Your task to perform on an android device: check data usage Image 0: 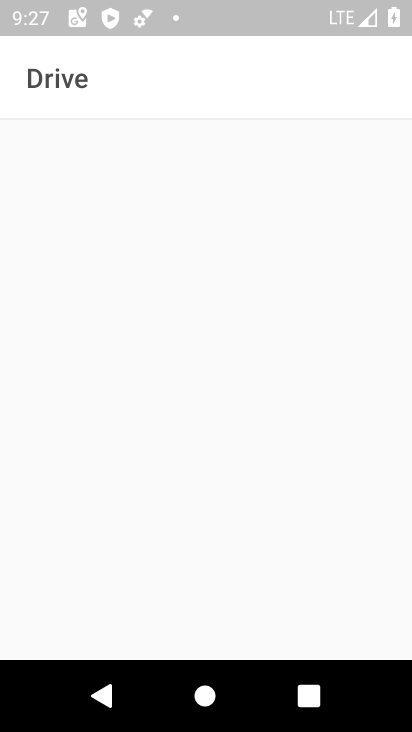
Step 0: press home button
Your task to perform on an android device: check data usage Image 1: 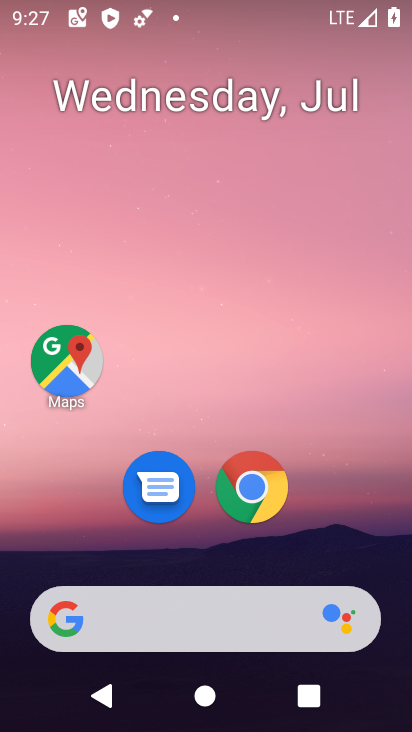
Step 1: drag from (212, 579) to (342, 6)
Your task to perform on an android device: check data usage Image 2: 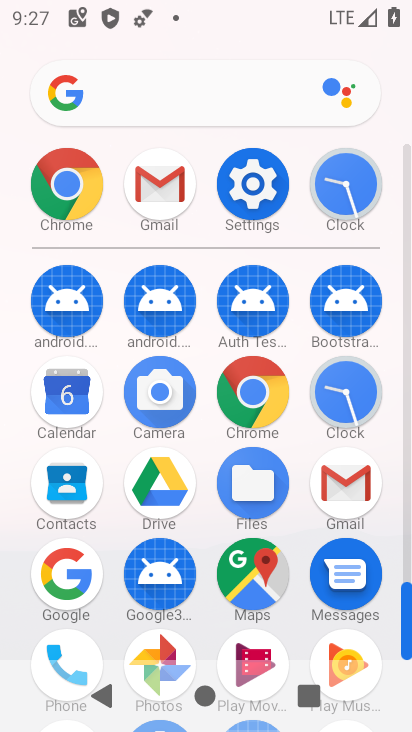
Step 2: click (270, 192)
Your task to perform on an android device: check data usage Image 3: 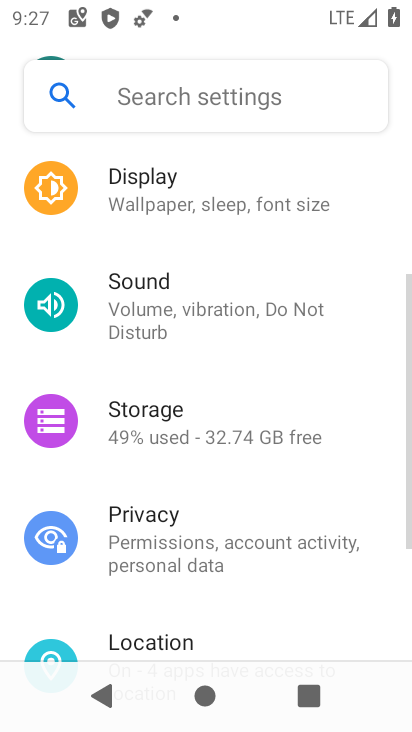
Step 3: drag from (270, 192) to (272, 542)
Your task to perform on an android device: check data usage Image 4: 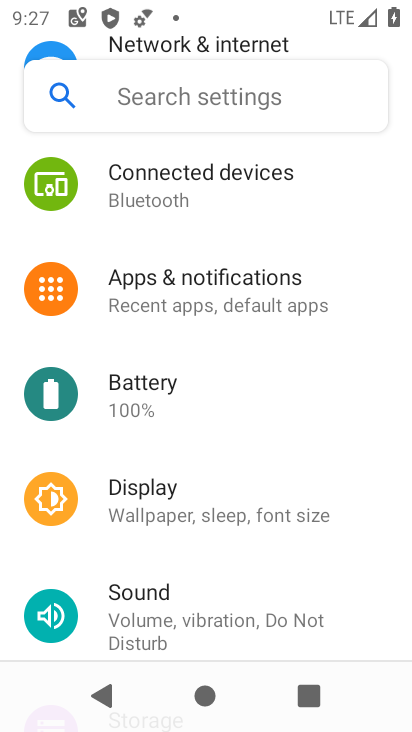
Step 4: drag from (212, 152) to (212, 394)
Your task to perform on an android device: check data usage Image 5: 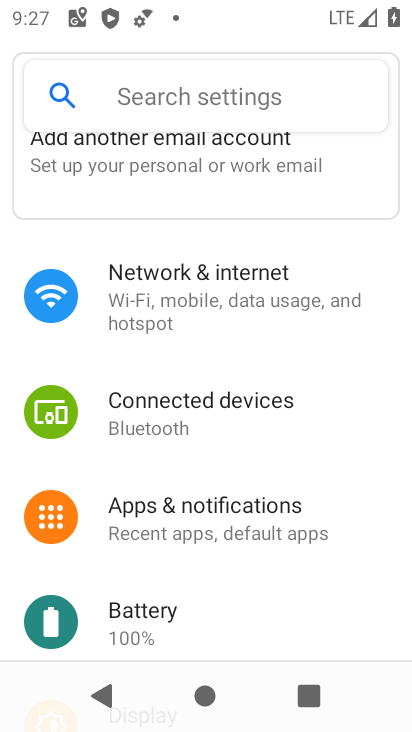
Step 5: click (188, 321)
Your task to perform on an android device: check data usage Image 6: 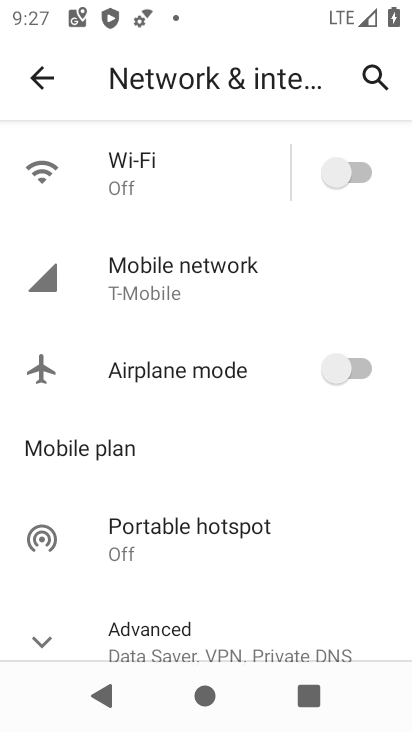
Step 6: click (156, 274)
Your task to perform on an android device: check data usage Image 7: 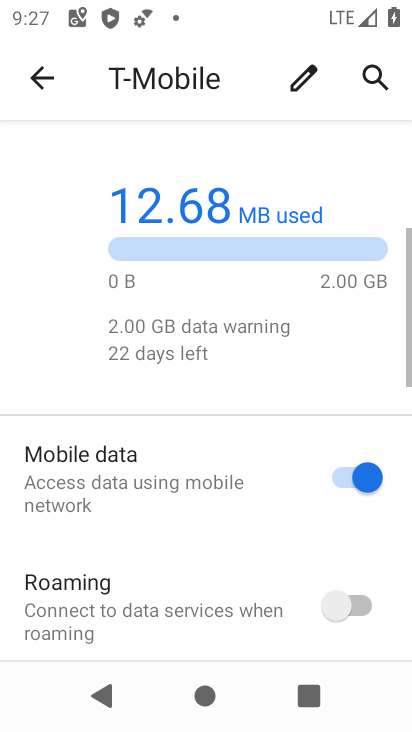
Step 7: task complete